Your task to perform on an android device: toggle notification dots Image 0: 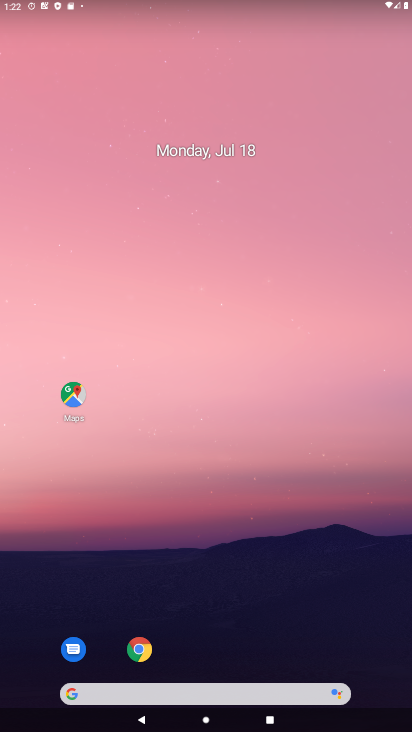
Step 0: drag from (193, 676) to (267, 14)
Your task to perform on an android device: toggle notification dots Image 1: 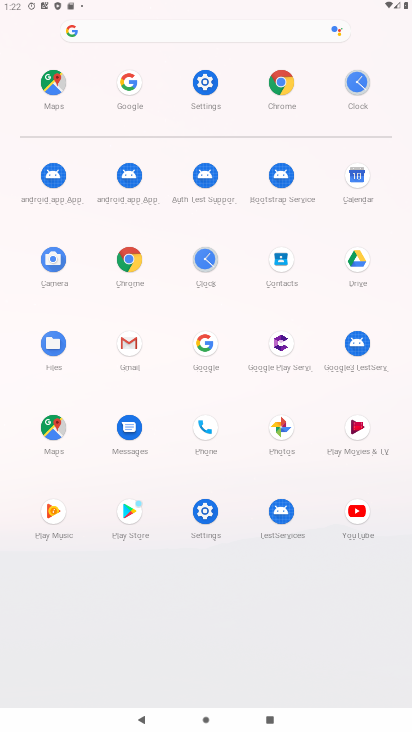
Step 1: click (202, 517)
Your task to perform on an android device: toggle notification dots Image 2: 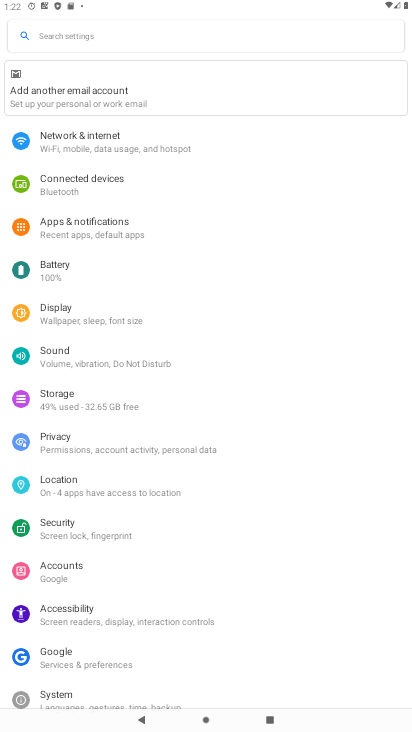
Step 2: click (127, 224)
Your task to perform on an android device: toggle notification dots Image 3: 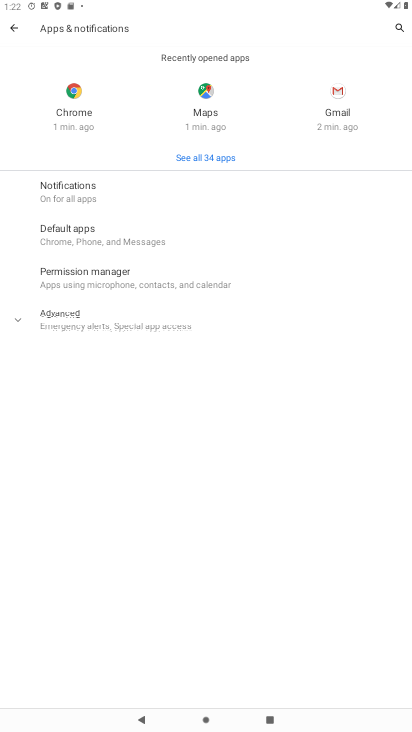
Step 3: click (69, 197)
Your task to perform on an android device: toggle notification dots Image 4: 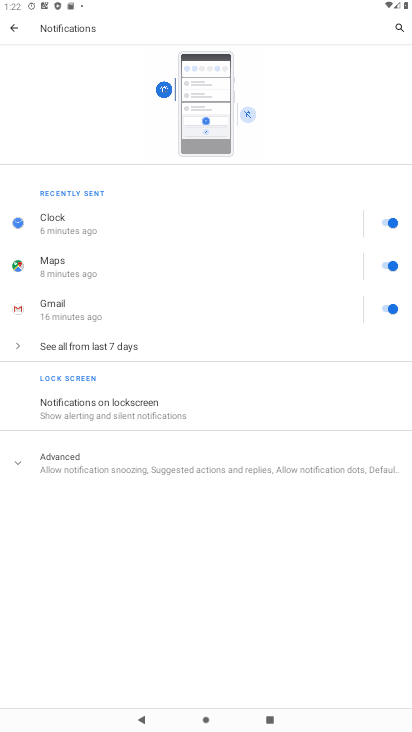
Step 4: click (111, 451)
Your task to perform on an android device: toggle notification dots Image 5: 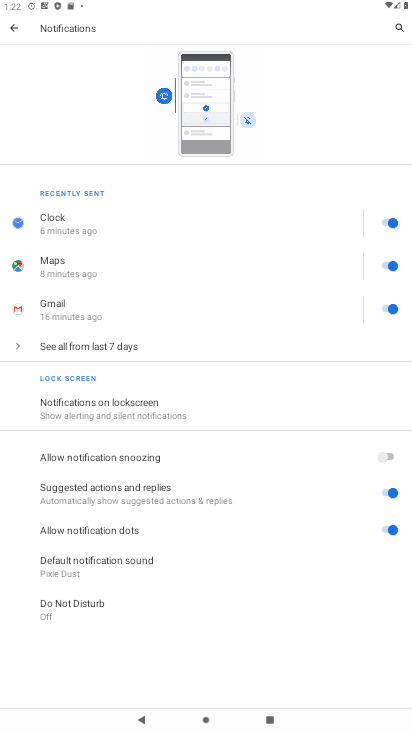
Step 5: click (387, 517)
Your task to perform on an android device: toggle notification dots Image 6: 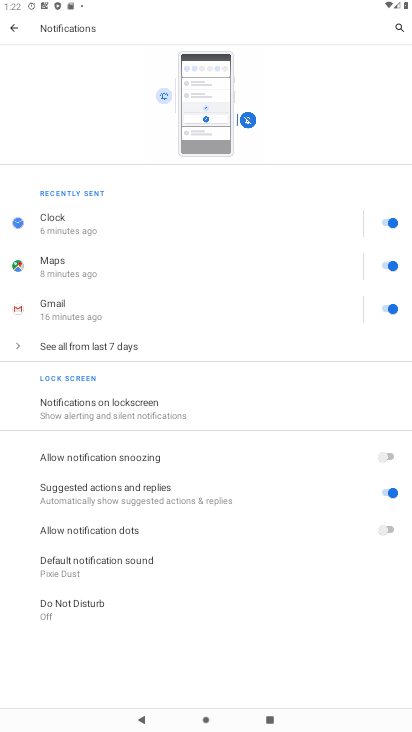
Step 6: task complete